Your task to perform on an android device: Open network settings Image 0: 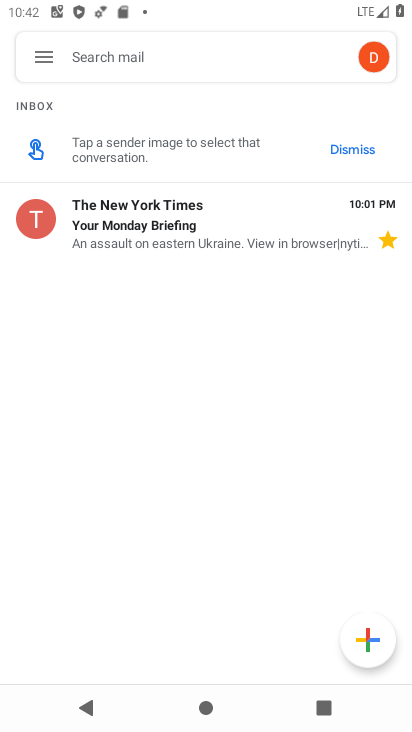
Step 0: press back button
Your task to perform on an android device: Open network settings Image 1: 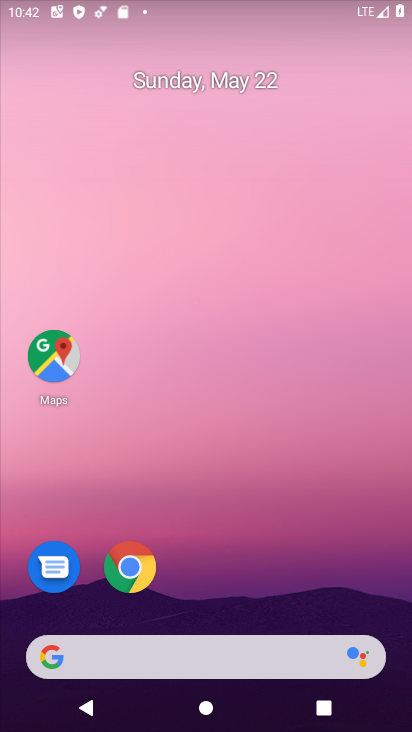
Step 1: drag from (266, 576) to (244, 14)
Your task to perform on an android device: Open network settings Image 2: 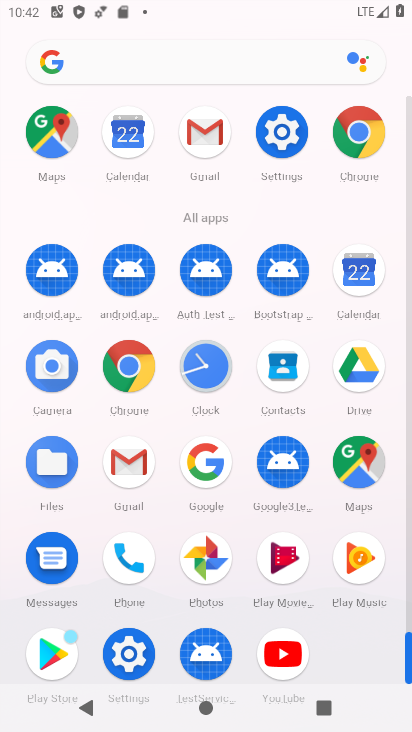
Step 2: click (280, 131)
Your task to perform on an android device: Open network settings Image 3: 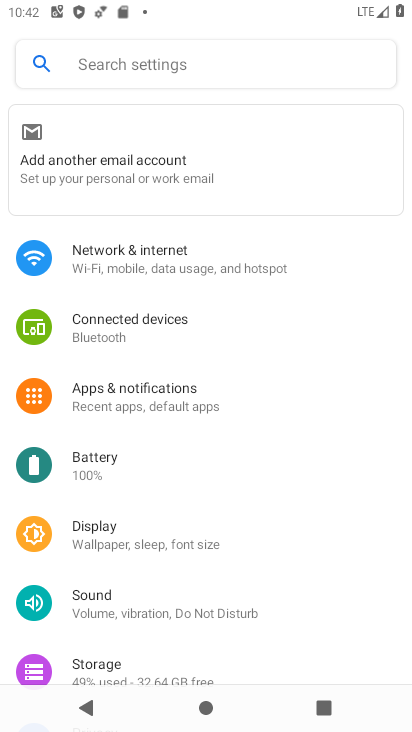
Step 3: click (154, 250)
Your task to perform on an android device: Open network settings Image 4: 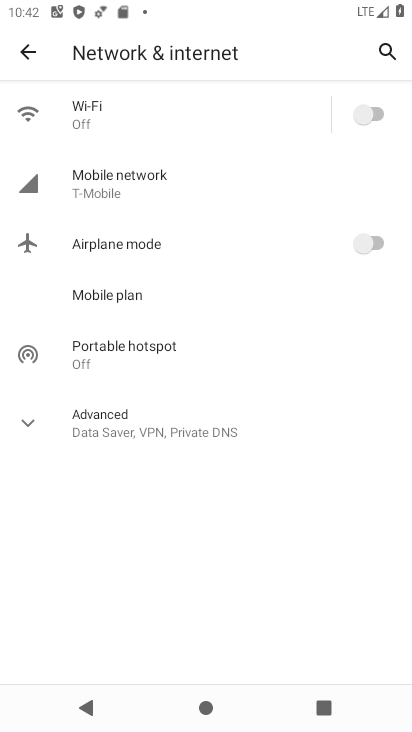
Step 4: click (37, 413)
Your task to perform on an android device: Open network settings Image 5: 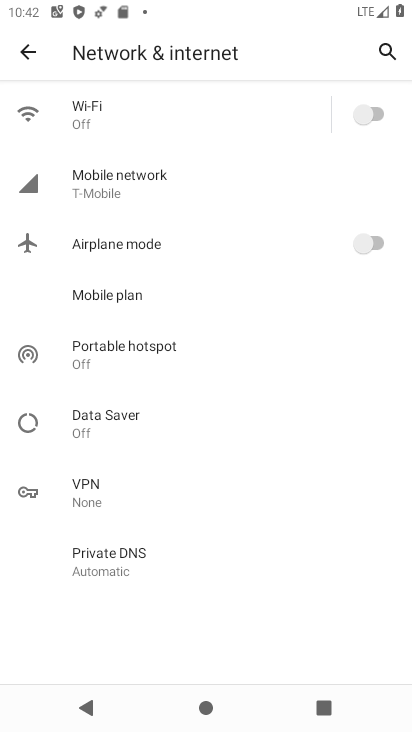
Step 5: task complete